Your task to perform on an android device: Open Google Image 0: 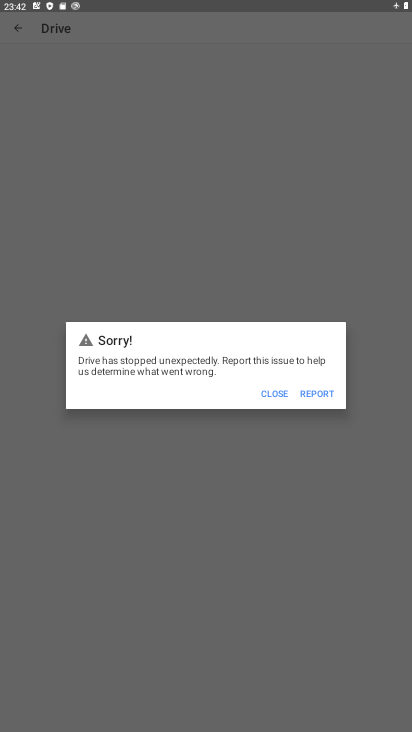
Step 0: press home button
Your task to perform on an android device: Open Google Image 1: 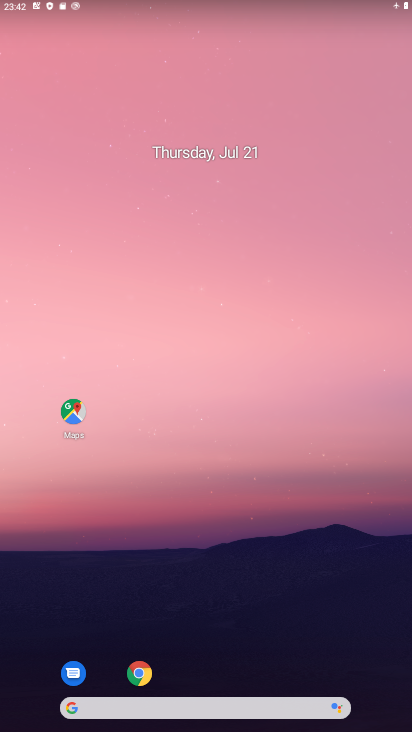
Step 1: drag from (200, 650) to (208, 114)
Your task to perform on an android device: Open Google Image 2: 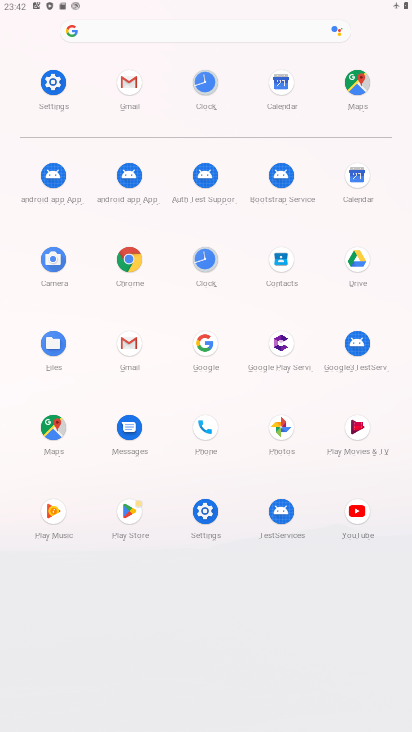
Step 2: click (208, 359)
Your task to perform on an android device: Open Google Image 3: 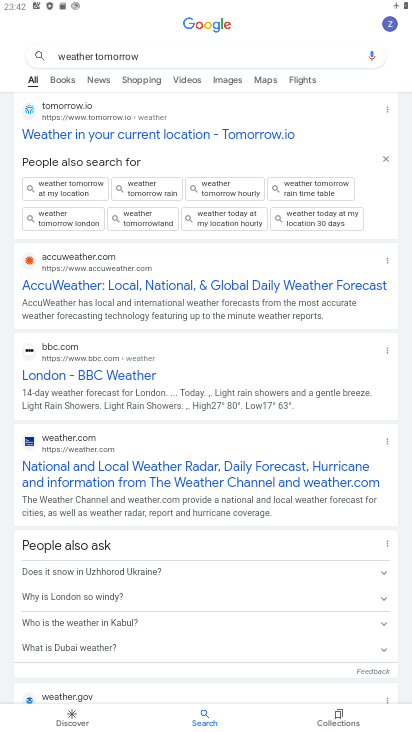
Step 3: task complete